Your task to perform on an android device: Go to notification settings Image 0: 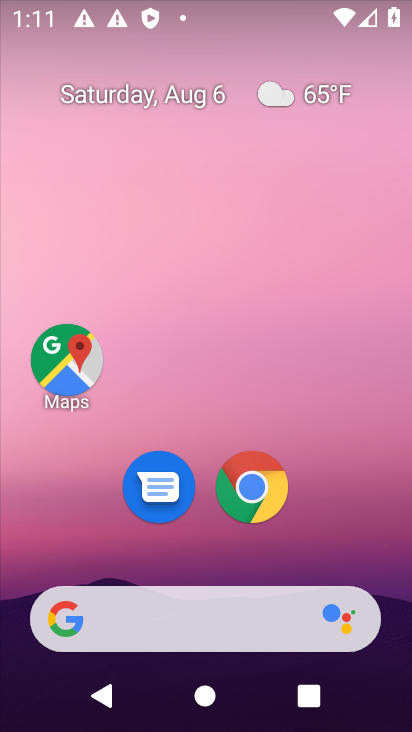
Step 0: drag from (143, 575) to (197, 111)
Your task to perform on an android device: Go to notification settings Image 1: 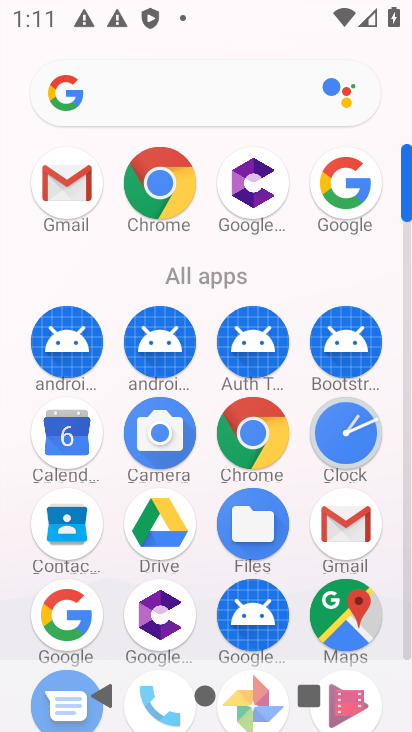
Step 1: drag from (384, 462) to (411, 190)
Your task to perform on an android device: Go to notification settings Image 2: 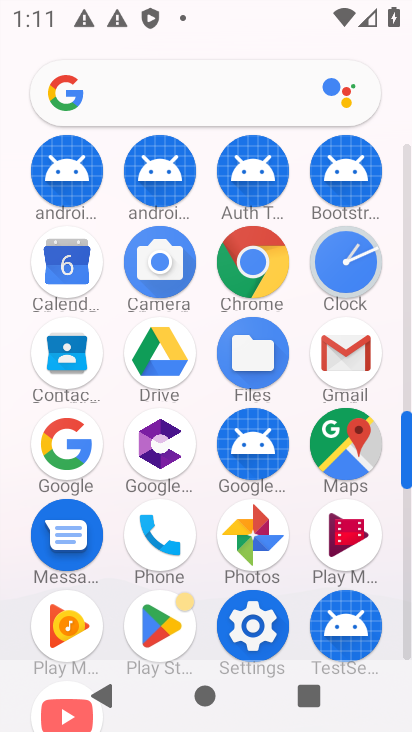
Step 2: click (258, 620)
Your task to perform on an android device: Go to notification settings Image 3: 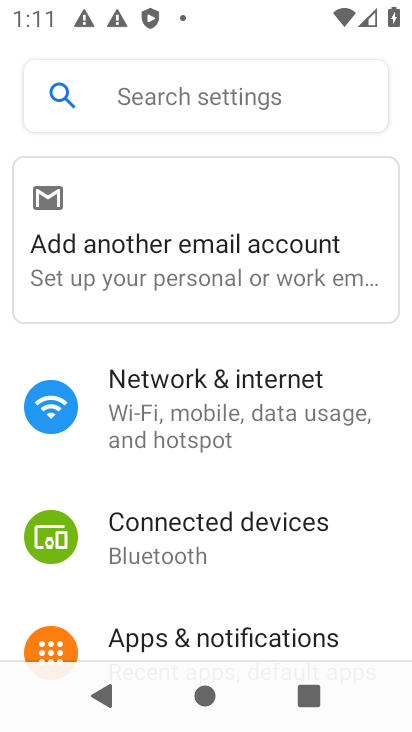
Step 3: drag from (241, 533) to (288, 234)
Your task to perform on an android device: Go to notification settings Image 4: 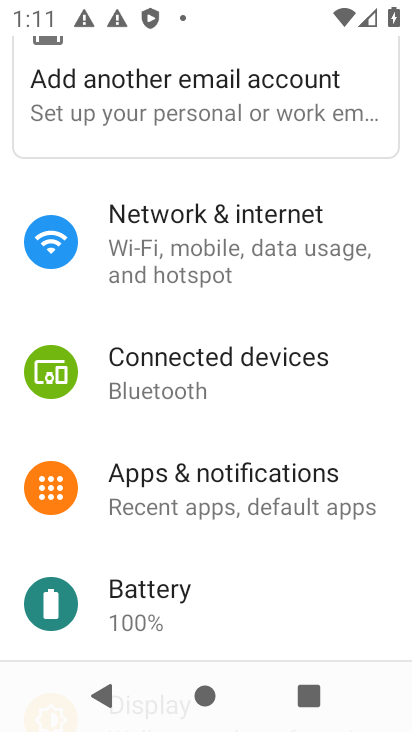
Step 4: click (230, 492)
Your task to perform on an android device: Go to notification settings Image 5: 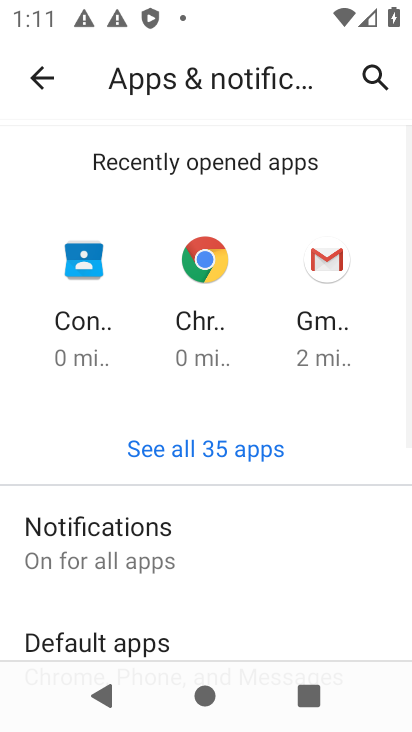
Step 5: click (138, 543)
Your task to perform on an android device: Go to notification settings Image 6: 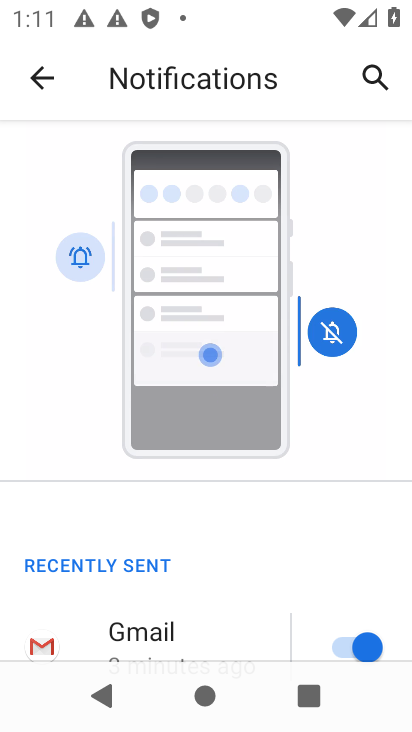
Step 6: task complete